Your task to perform on an android device: Empty the shopping cart on bestbuy.com. Search for "usb-b" on bestbuy.com, select the first entry, add it to the cart, then select checkout. Image 0: 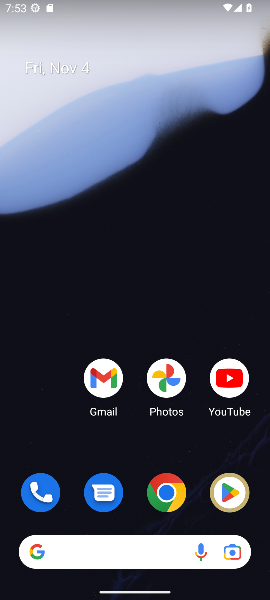
Step 0: drag from (137, 442) to (166, 42)
Your task to perform on an android device: Empty the shopping cart on bestbuy.com. Search for "usb-b" on bestbuy.com, select the first entry, add it to the cart, then select checkout. Image 1: 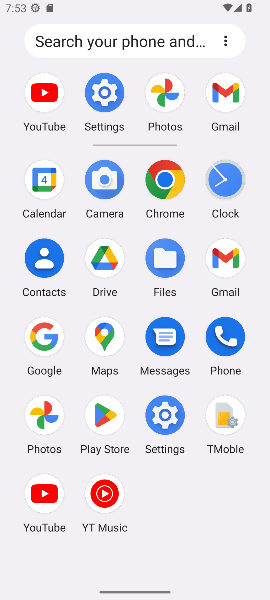
Step 1: click (166, 179)
Your task to perform on an android device: Empty the shopping cart on bestbuy.com. Search for "usb-b" on bestbuy.com, select the first entry, add it to the cart, then select checkout. Image 2: 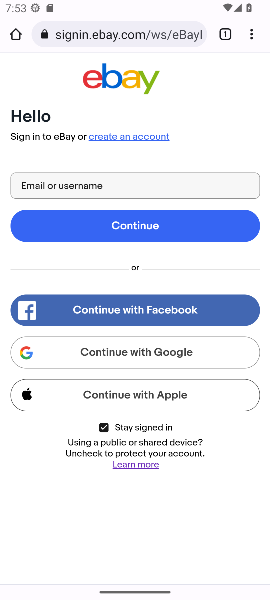
Step 2: click (144, 36)
Your task to perform on an android device: Empty the shopping cart on bestbuy.com. Search for "usb-b" on bestbuy.com, select the first entry, add it to the cart, then select checkout. Image 3: 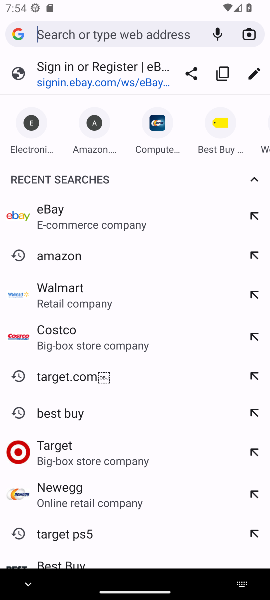
Step 3: type "bestbuy.com"
Your task to perform on an android device: Empty the shopping cart on bestbuy.com. Search for "usb-b" on bestbuy.com, select the first entry, add it to the cart, then select checkout. Image 4: 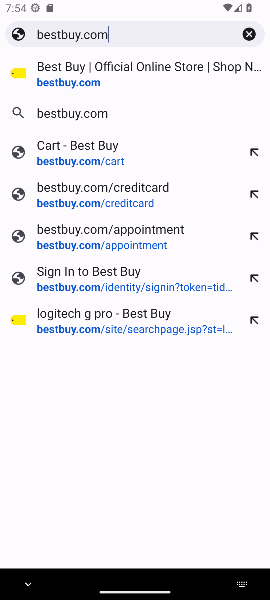
Step 4: press enter
Your task to perform on an android device: Empty the shopping cart on bestbuy.com. Search for "usb-b" on bestbuy.com, select the first entry, add it to the cart, then select checkout. Image 5: 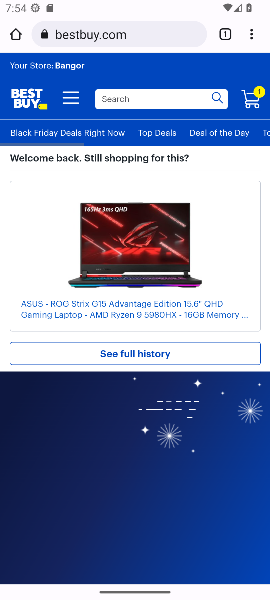
Step 5: click (252, 92)
Your task to perform on an android device: Empty the shopping cart on bestbuy.com. Search for "usb-b" on bestbuy.com, select the first entry, add it to the cart, then select checkout. Image 6: 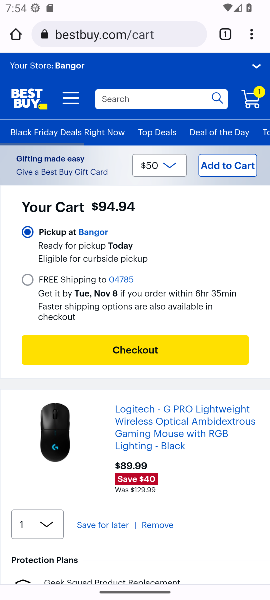
Step 6: click (154, 520)
Your task to perform on an android device: Empty the shopping cart on bestbuy.com. Search for "usb-b" on bestbuy.com, select the first entry, add it to the cart, then select checkout. Image 7: 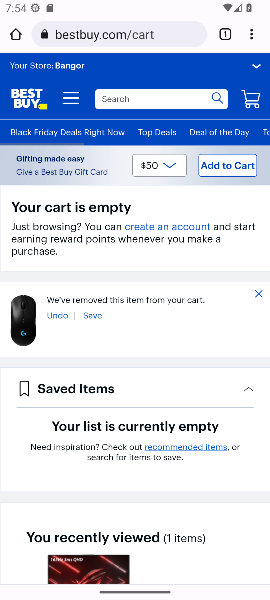
Step 7: click (184, 99)
Your task to perform on an android device: Empty the shopping cart on bestbuy.com. Search for "usb-b" on bestbuy.com, select the first entry, add it to the cart, then select checkout. Image 8: 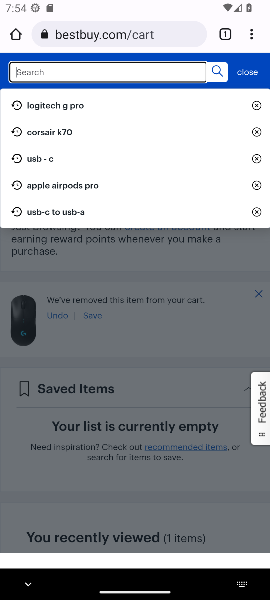
Step 8: type "usb-b"
Your task to perform on an android device: Empty the shopping cart on bestbuy.com. Search for "usb-b" on bestbuy.com, select the first entry, add it to the cart, then select checkout. Image 9: 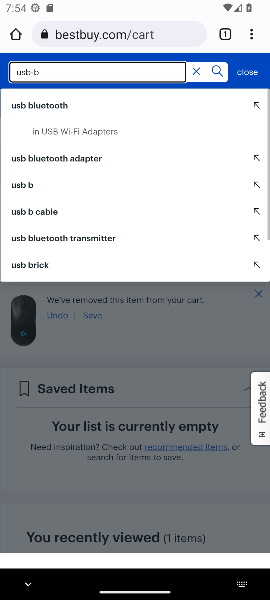
Step 9: press enter
Your task to perform on an android device: Empty the shopping cart on bestbuy.com. Search for "usb-b" on bestbuy.com, select the first entry, add it to the cart, then select checkout. Image 10: 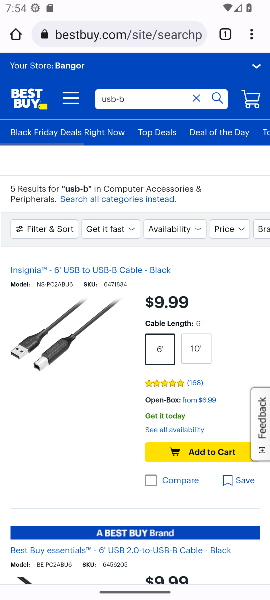
Step 10: drag from (114, 468) to (113, 369)
Your task to perform on an android device: Empty the shopping cart on bestbuy.com. Search for "usb-b" on bestbuy.com, select the first entry, add it to the cart, then select checkout. Image 11: 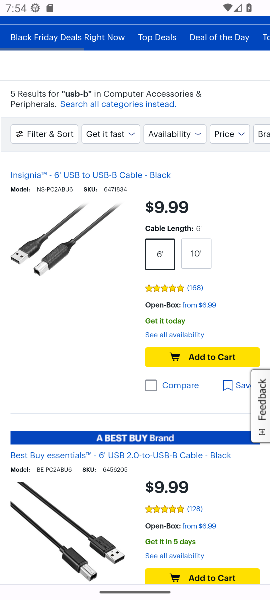
Step 11: click (188, 357)
Your task to perform on an android device: Empty the shopping cart on bestbuy.com. Search for "usb-b" on bestbuy.com, select the first entry, add it to the cart, then select checkout. Image 12: 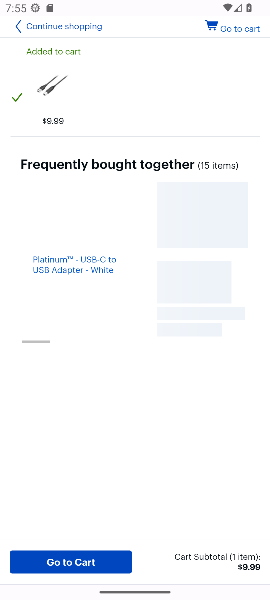
Step 12: click (105, 557)
Your task to perform on an android device: Empty the shopping cart on bestbuy.com. Search for "usb-b" on bestbuy.com, select the first entry, add it to the cart, then select checkout. Image 13: 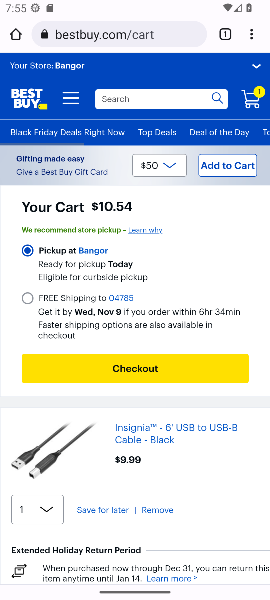
Step 13: click (159, 374)
Your task to perform on an android device: Empty the shopping cart on bestbuy.com. Search for "usb-b" on bestbuy.com, select the first entry, add it to the cart, then select checkout. Image 14: 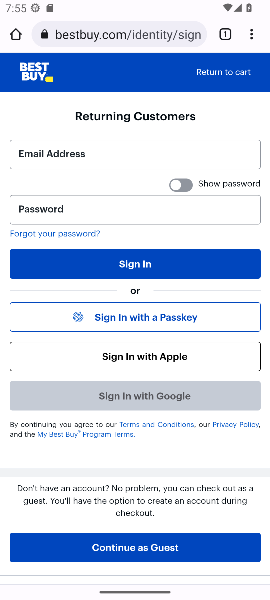
Step 14: task complete